Your task to perform on an android device: move a message to another label in the gmail app Image 0: 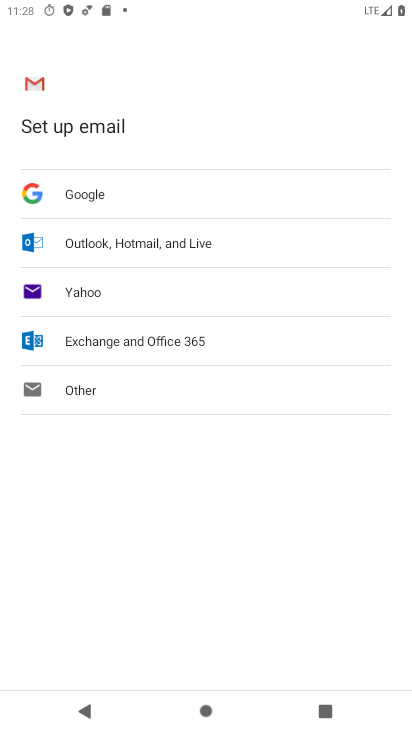
Step 0: press home button
Your task to perform on an android device: move a message to another label in the gmail app Image 1: 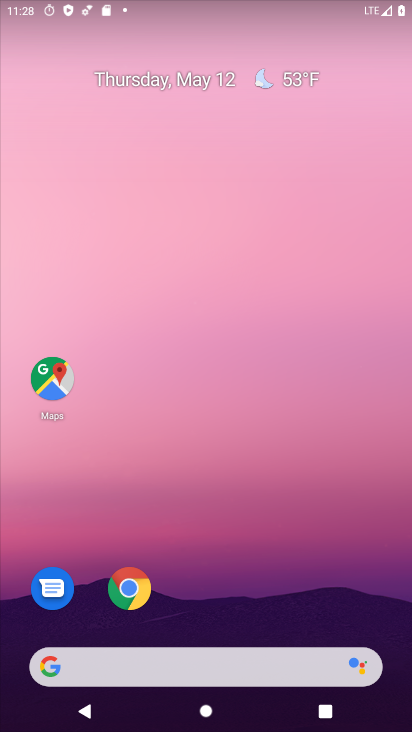
Step 1: drag from (288, 599) to (228, 127)
Your task to perform on an android device: move a message to another label in the gmail app Image 2: 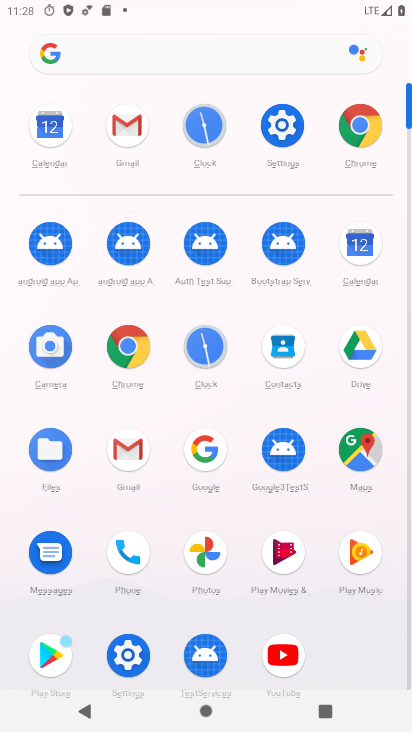
Step 2: click (128, 133)
Your task to perform on an android device: move a message to another label in the gmail app Image 3: 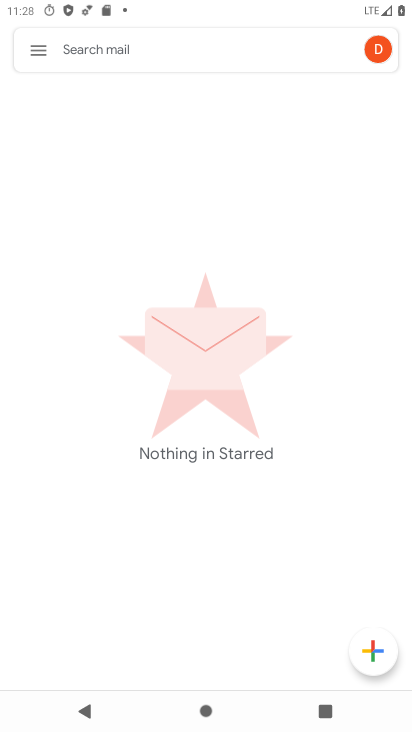
Step 3: click (39, 42)
Your task to perform on an android device: move a message to another label in the gmail app Image 4: 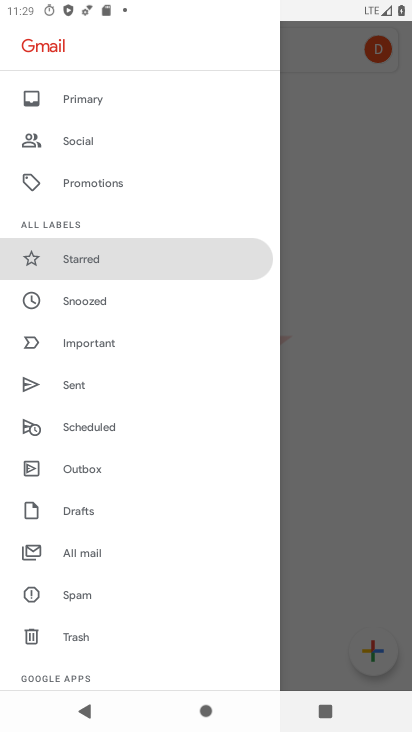
Step 4: click (91, 548)
Your task to perform on an android device: move a message to another label in the gmail app Image 5: 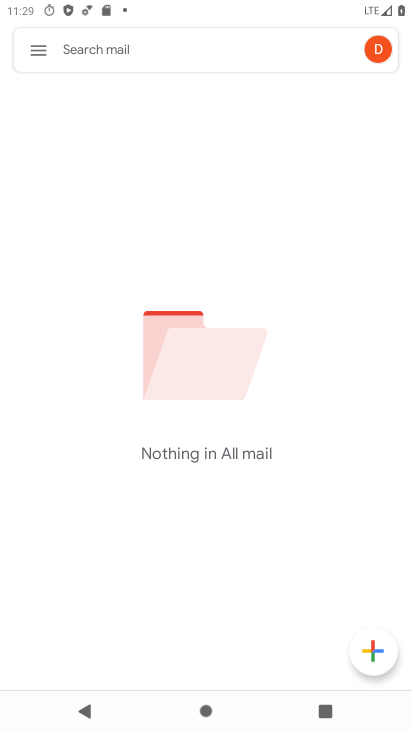
Step 5: task complete